Your task to perform on an android device: empty trash in the gmail app Image 0: 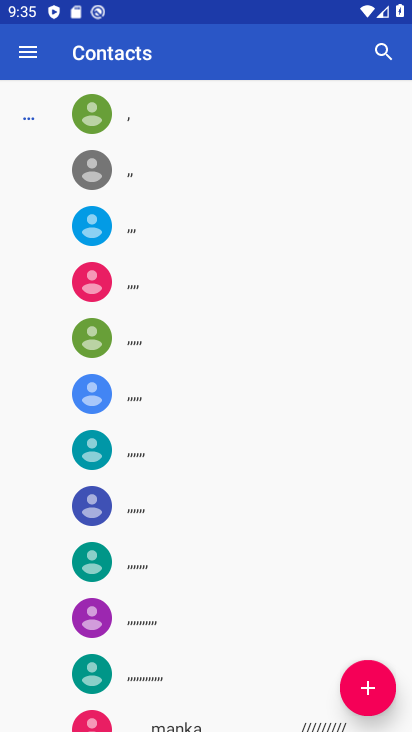
Step 0: task complete